Your task to perform on an android device: star an email in the gmail app Image 0: 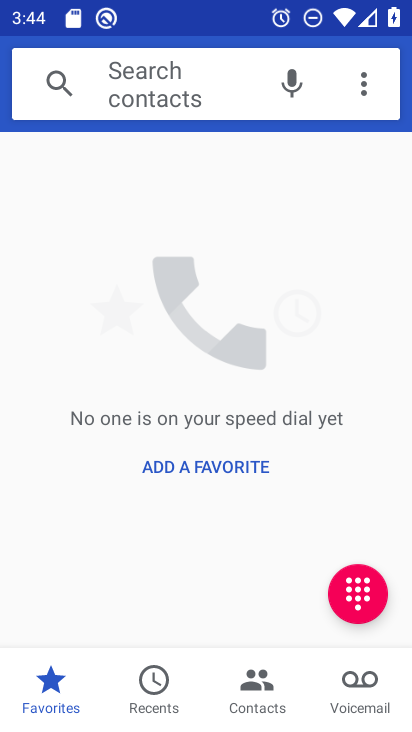
Step 0: press home button
Your task to perform on an android device: star an email in the gmail app Image 1: 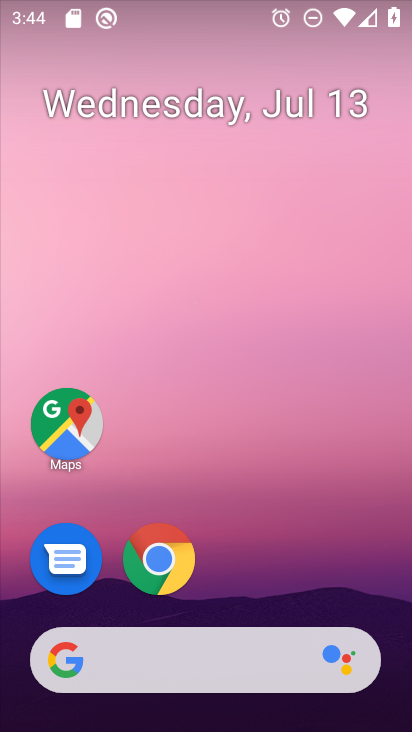
Step 1: drag from (354, 579) to (352, 156)
Your task to perform on an android device: star an email in the gmail app Image 2: 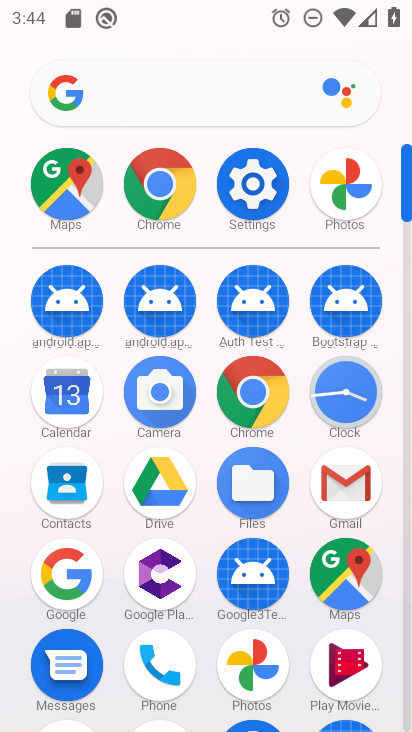
Step 2: click (350, 482)
Your task to perform on an android device: star an email in the gmail app Image 3: 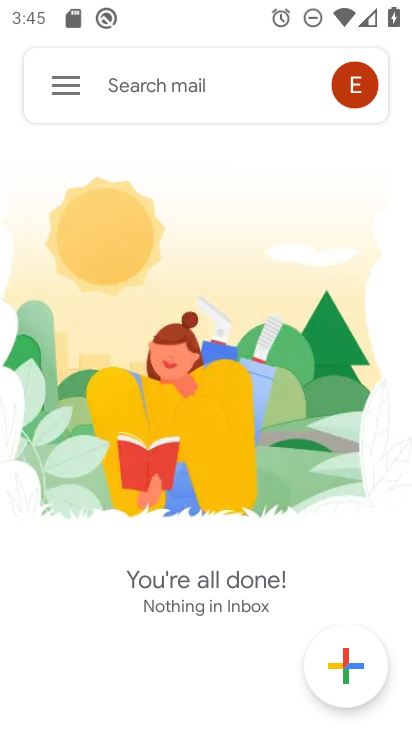
Step 3: click (74, 86)
Your task to perform on an android device: star an email in the gmail app Image 4: 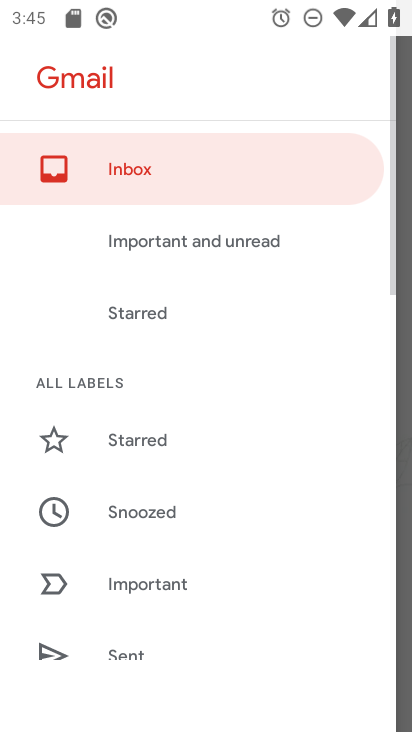
Step 4: drag from (267, 359) to (277, 299)
Your task to perform on an android device: star an email in the gmail app Image 5: 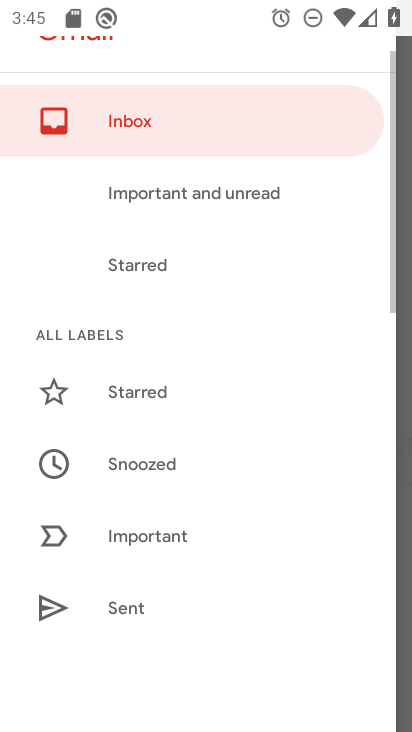
Step 5: drag from (309, 418) to (310, 320)
Your task to perform on an android device: star an email in the gmail app Image 6: 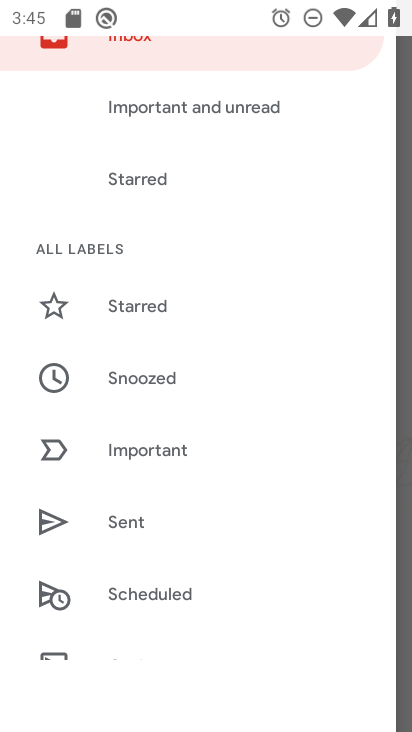
Step 6: drag from (295, 409) to (297, 316)
Your task to perform on an android device: star an email in the gmail app Image 7: 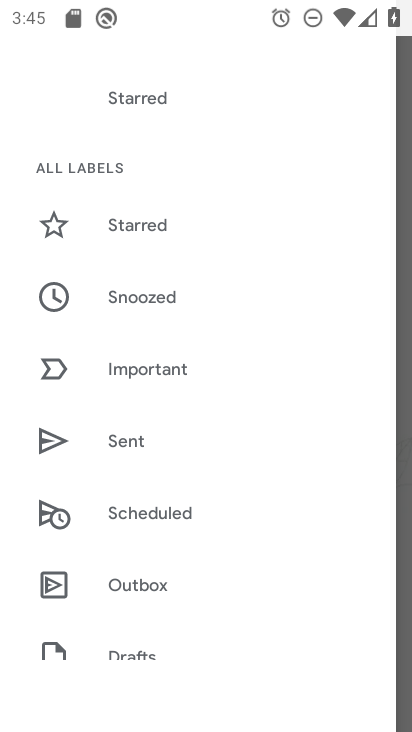
Step 7: drag from (300, 412) to (304, 328)
Your task to perform on an android device: star an email in the gmail app Image 8: 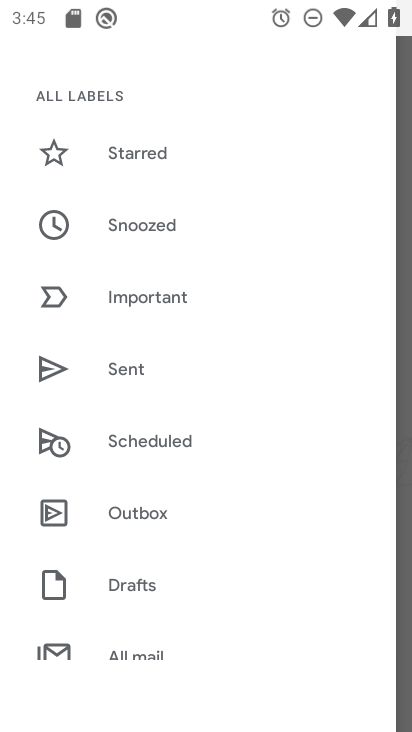
Step 8: drag from (299, 437) to (300, 359)
Your task to perform on an android device: star an email in the gmail app Image 9: 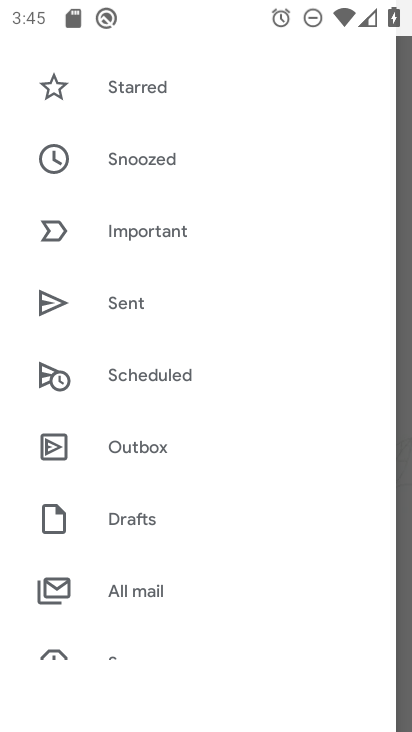
Step 9: drag from (294, 441) to (298, 337)
Your task to perform on an android device: star an email in the gmail app Image 10: 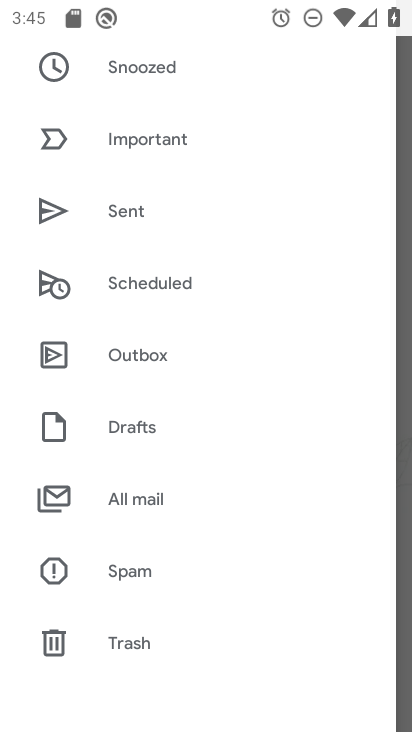
Step 10: drag from (283, 457) to (294, 351)
Your task to perform on an android device: star an email in the gmail app Image 11: 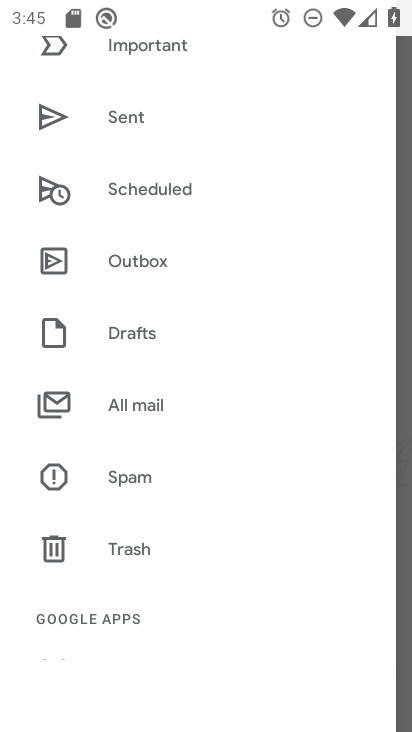
Step 11: drag from (296, 493) to (305, 381)
Your task to perform on an android device: star an email in the gmail app Image 12: 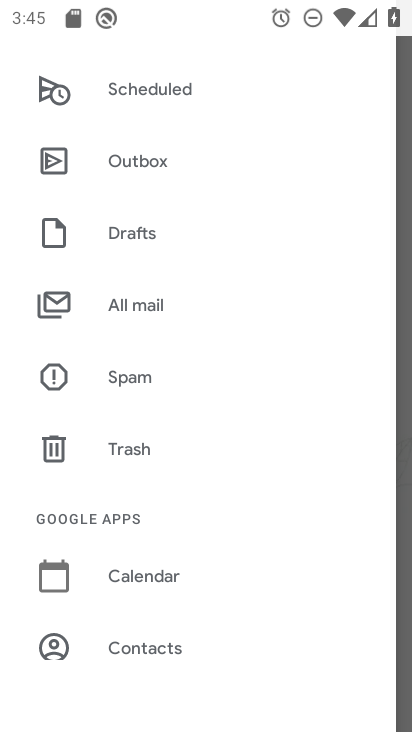
Step 12: drag from (300, 464) to (300, 355)
Your task to perform on an android device: star an email in the gmail app Image 13: 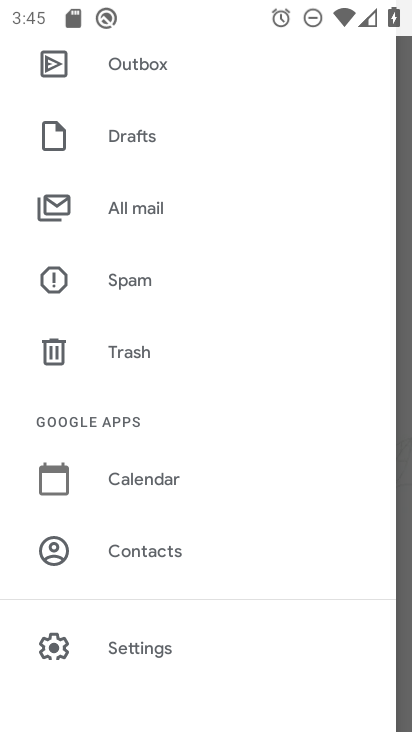
Step 13: click (229, 218)
Your task to perform on an android device: star an email in the gmail app Image 14: 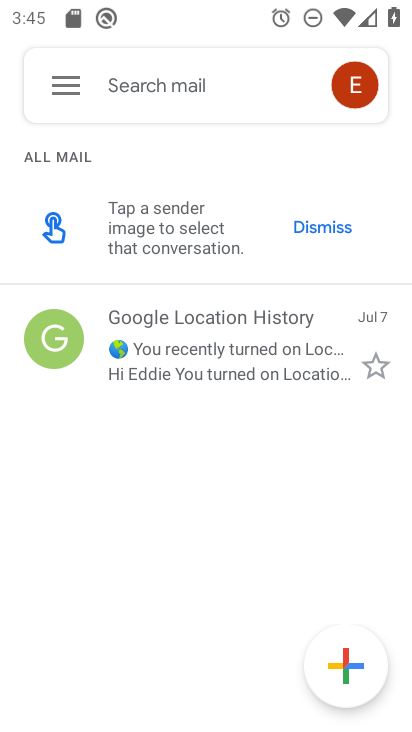
Step 14: click (380, 365)
Your task to perform on an android device: star an email in the gmail app Image 15: 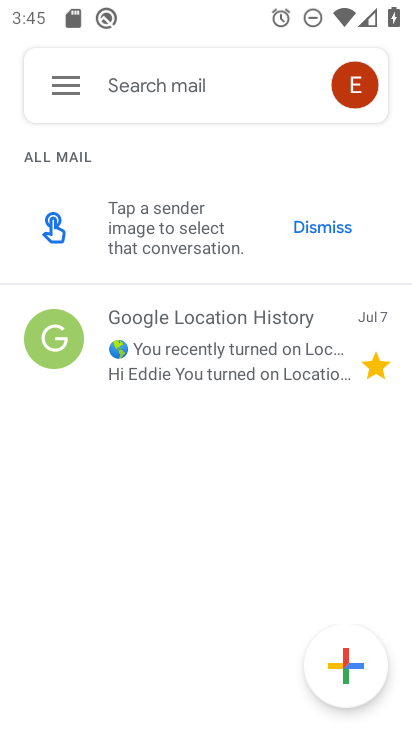
Step 15: task complete